Your task to perform on an android device: Go to eBay Image 0: 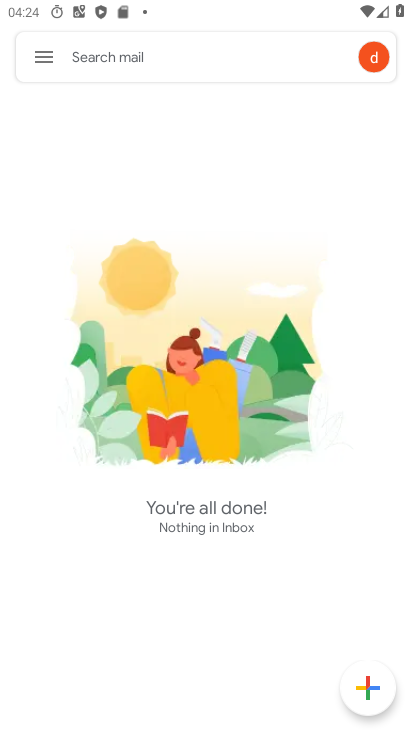
Step 0: drag from (259, 600) to (138, 103)
Your task to perform on an android device: Go to eBay Image 1: 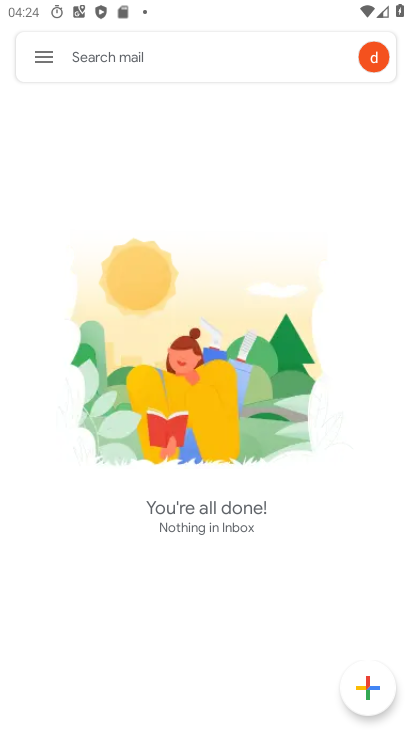
Step 1: press back button
Your task to perform on an android device: Go to eBay Image 2: 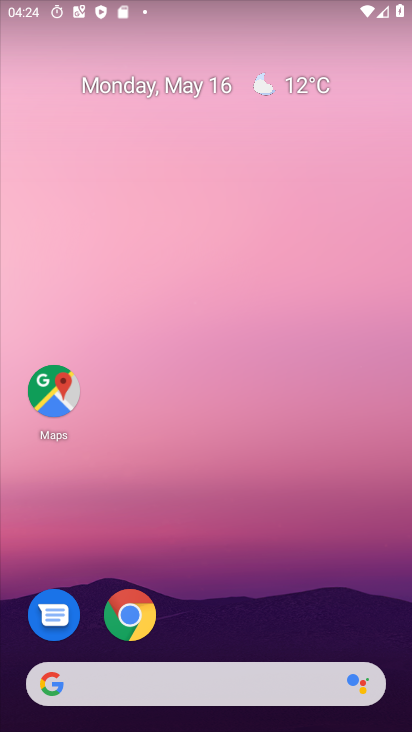
Step 2: drag from (213, 196) to (180, 82)
Your task to perform on an android device: Go to eBay Image 3: 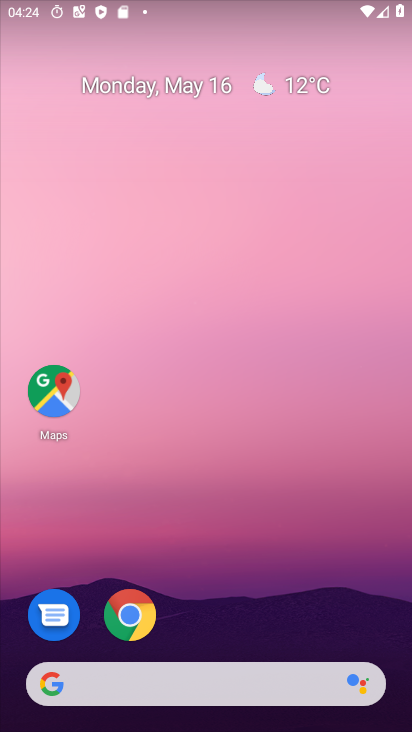
Step 3: drag from (230, 644) to (208, 90)
Your task to perform on an android device: Go to eBay Image 4: 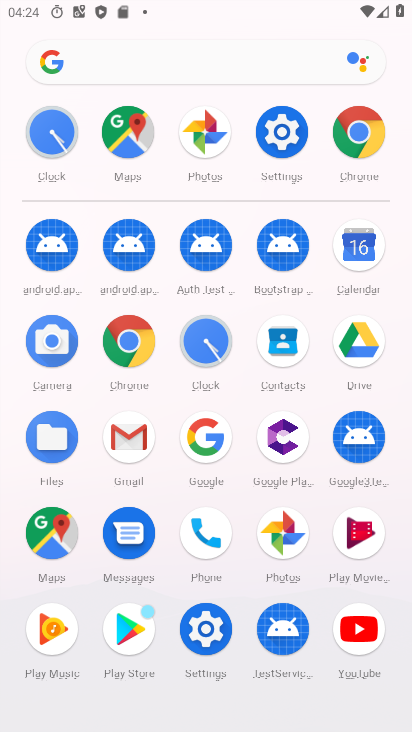
Step 4: click (340, 146)
Your task to perform on an android device: Go to eBay Image 5: 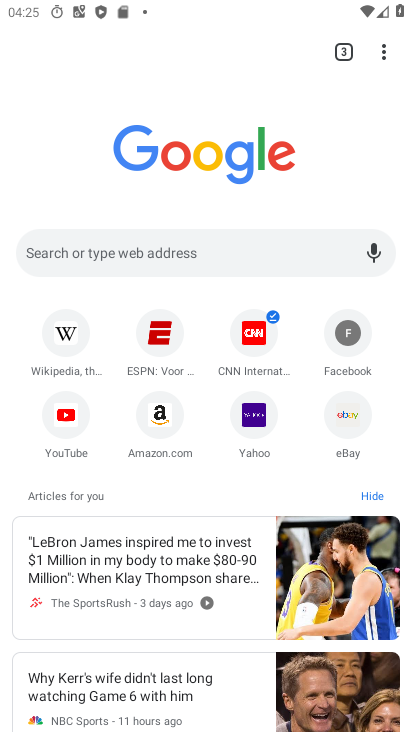
Step 5: click (342, 428)
Your task to perform on an android device: Go to eBay Image 6: 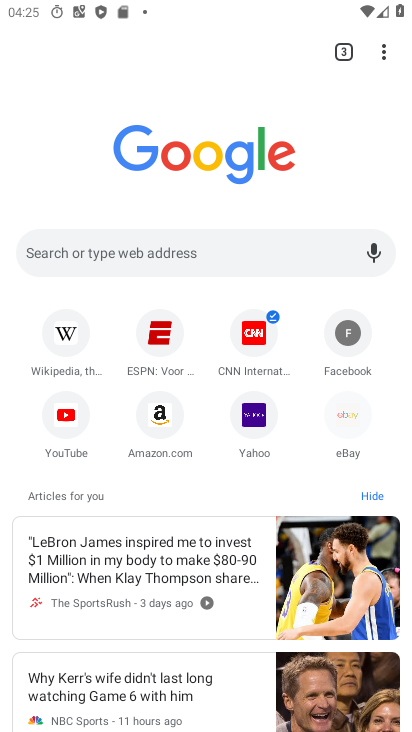
Step 6: click (342, 428)
Your task to perform on an android device: Go to eBay Image 7: 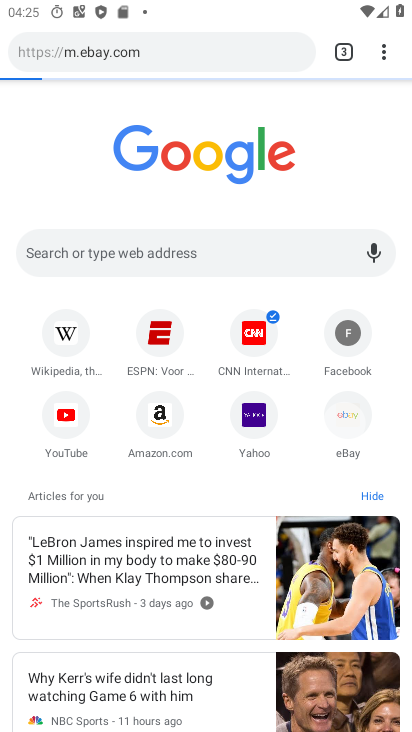
Step 7: click (342, 427)
Your task to perform on an android device: Go to eBay Image 8: 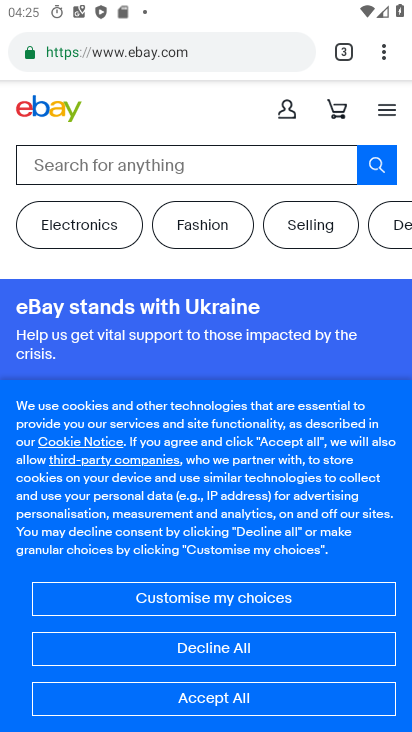
Step 8: task complete